Your task to perform on an android device: change text size in settings app Image 0: 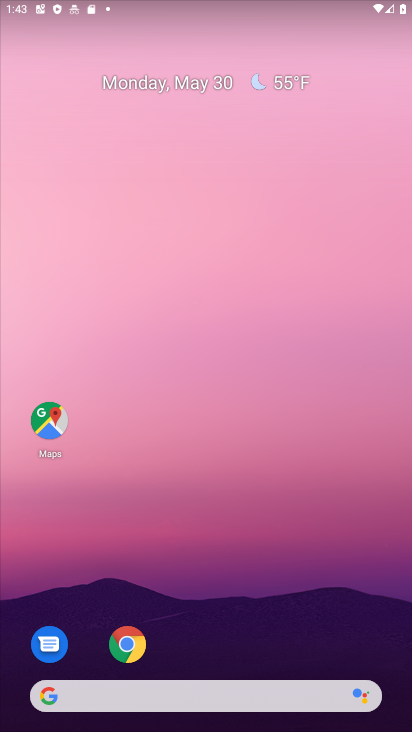
Step 0: drag from (292, 618) to (213, 31)
Your task to perform on an android device: change text size in settings app Image 1: 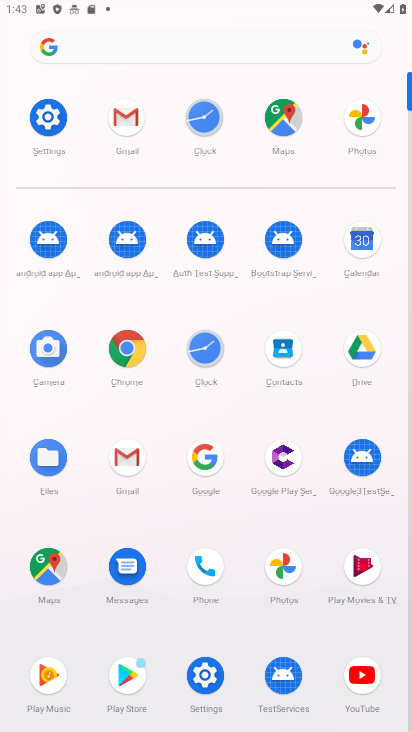
Step 1: click (59, 143)
Your task to perform on an android device: change text size in settings app Image 2: 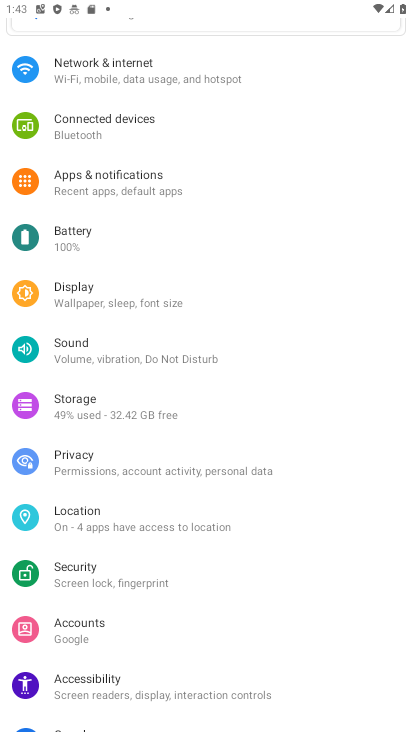
Step 2: task complete